Your task to perform on an android device: toggle show notifications on the lock screen Image 0: 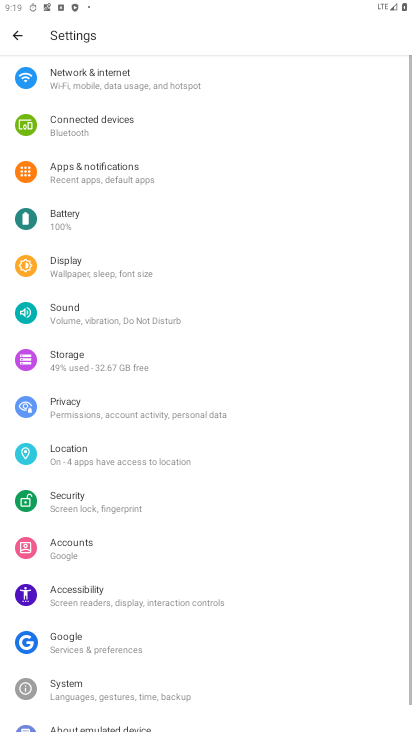
Step 0: press home button
Your task to perform on an android device: toggle show notifications on the lock screen Image 1: 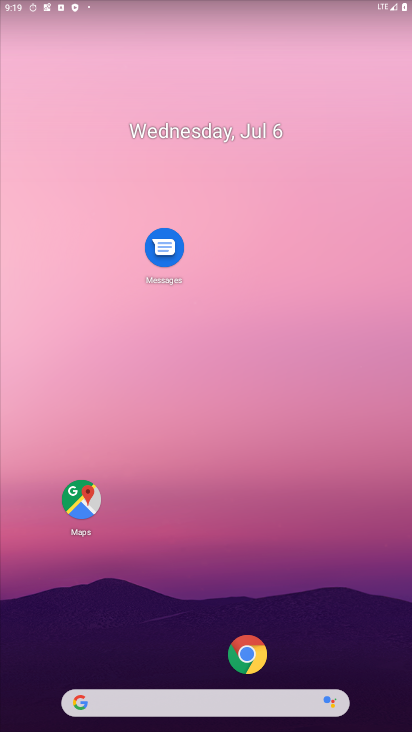
Step 1: drag from (162, 8) to (156, 493)
Your task to perform on an android device: toggle show notifications on the lock screen Image 2: 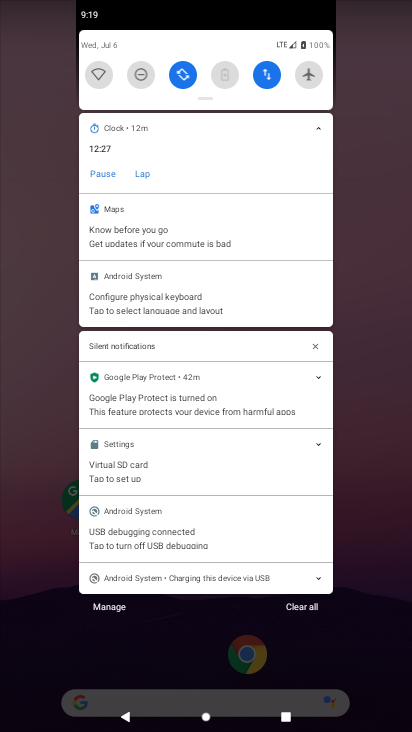
Step 2: drag from (240, 63) to (251, 618)
Your task to perform on an android device: toggle show notifications on the lock screen Image 3: 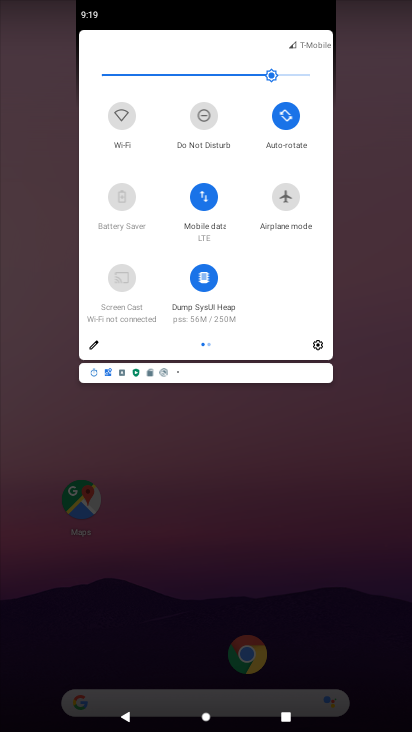
Step 3: click (323, 349)
Your task to perform on an android device: toggle show notifications on the lock screen Image 4: 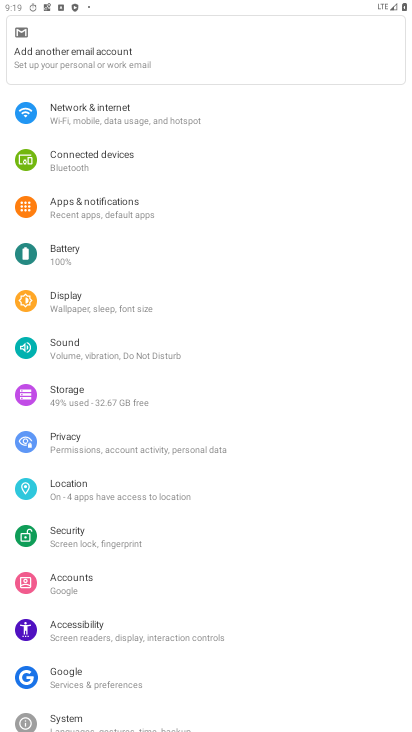
Step 4: click (140, 218)
Your task to perform on an android device: toggle show notifications on the lock screen Image 5: 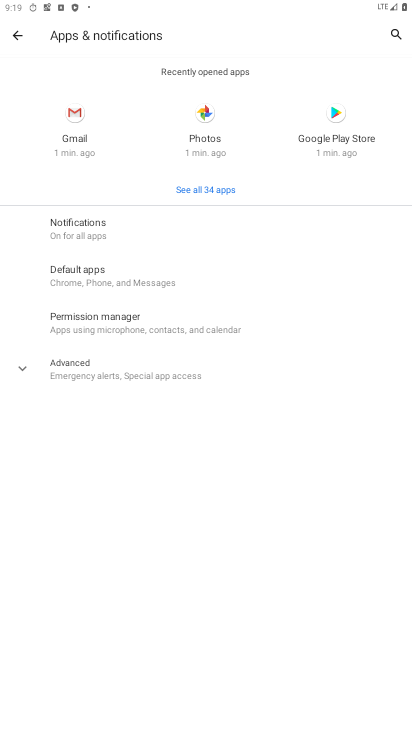
Step 5: click (129, 227)
Your task to perform on an android device: toggle show notifications on the lock screen Image 6: 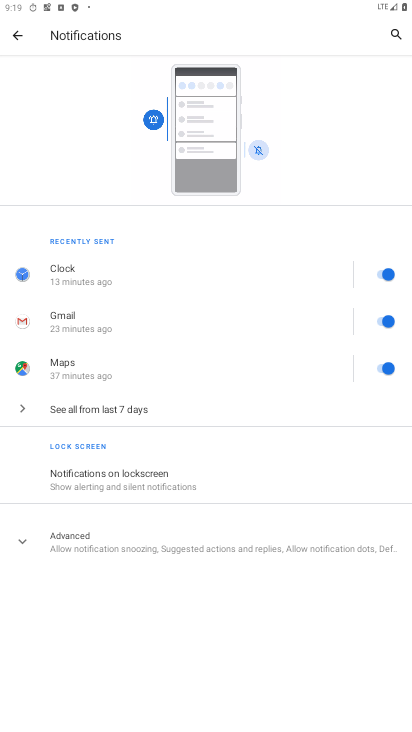
Step 6: click (113, 548)
Your task to perform on an android device: toggle show notifications on the lock screen Image 7: 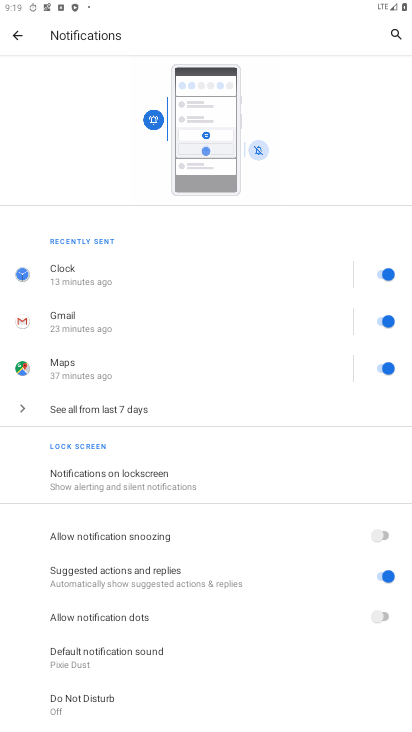
Step 7: click (143, 484)
Your task to perform on an android device: toggle show notifications on the lock screen Image 8: 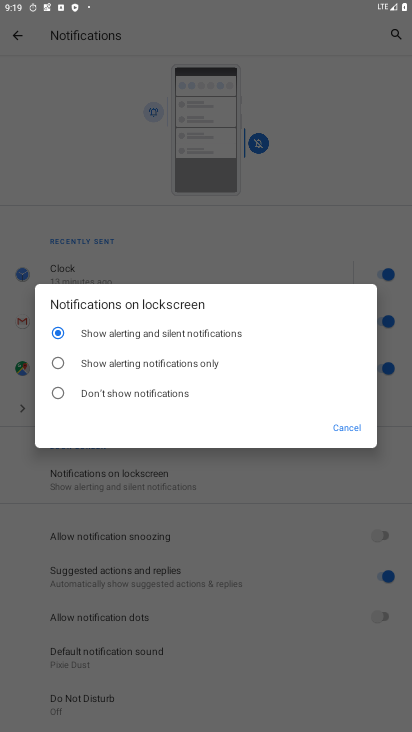
Step 8: click (168, 362)
Your task to perform on an android device: toggle show notifications on the lock screen Image 9: 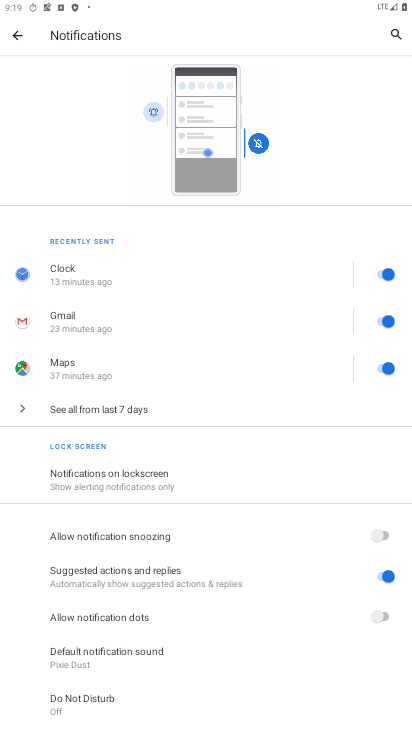
Step 9: task complete